Your task to perform on an android device: Check the news Image 0: 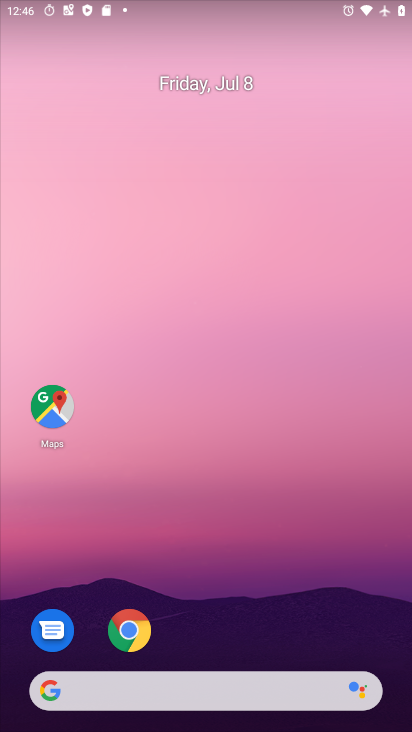
Step 0: drag from (198, 629) to (211, 198)
Your task to perform on an android device: Check the news Image 1: 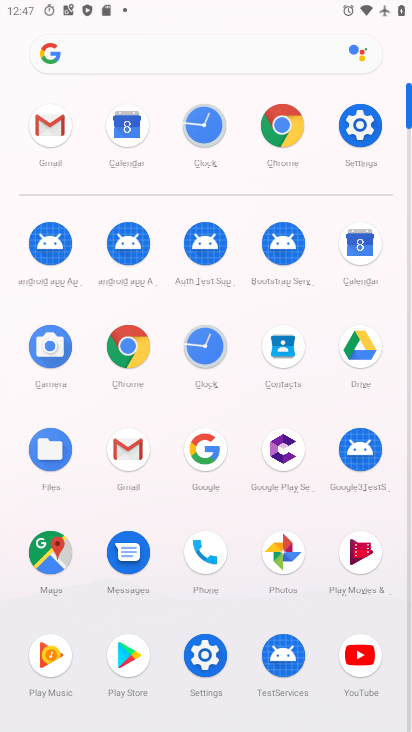
Step 1: click (203, 444)
Your task to perform on an android device: Check the news Image 2: 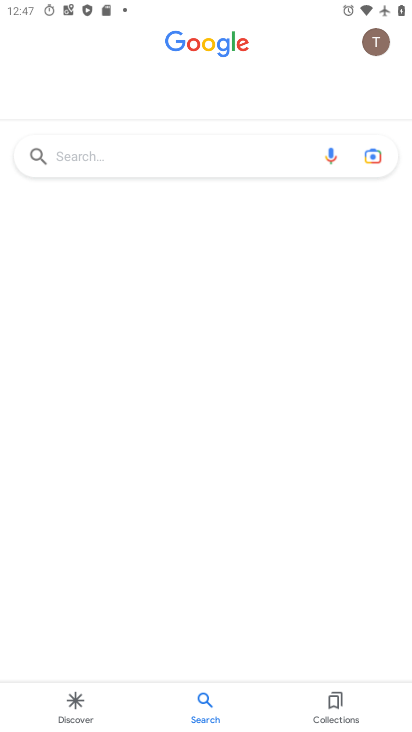
Step 2: click (154, 168)
Your task to perform on an android device: Check the news Image 3: 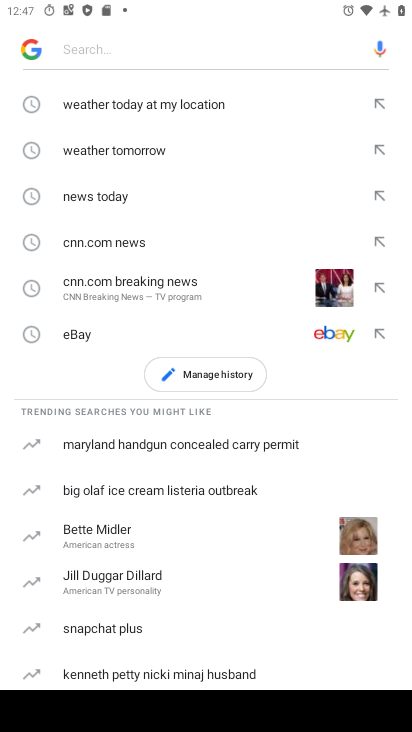
Step 3: type "news"
Your task to perform on an android device: Check the news Image 4: 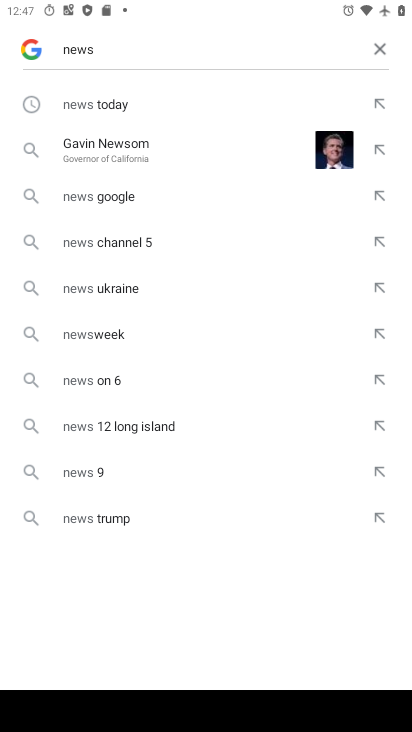
Step 4: click (121, 117)
Your task to perform on an android device: Check the news Image 5: 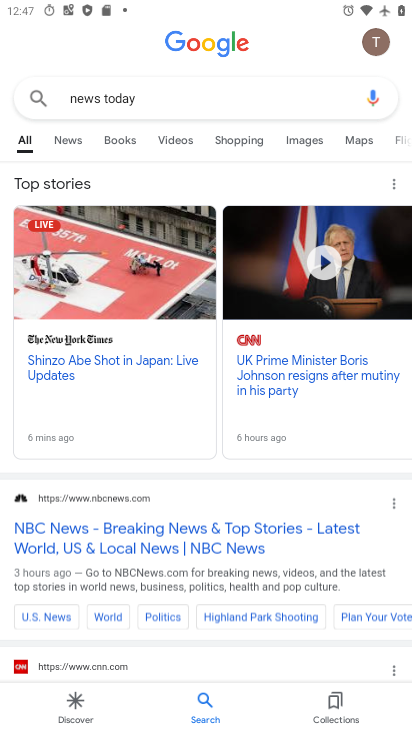
Step 5: click (60, 127)
Your task to perform on an android device: Check the news Image 6: 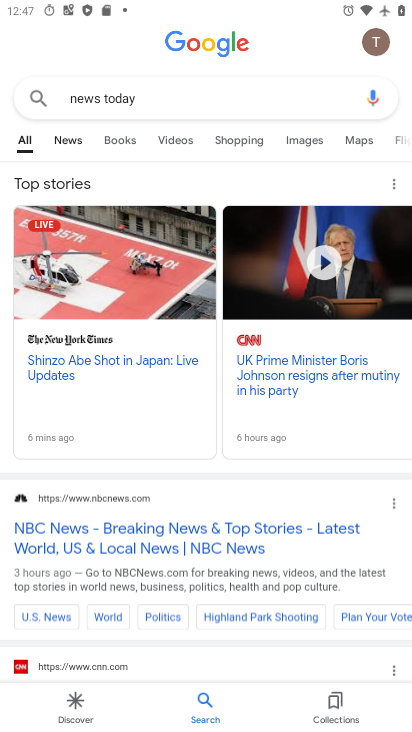
Step 6: click (79, 147)
Your task to perform on an android device: Check the news Image 7: 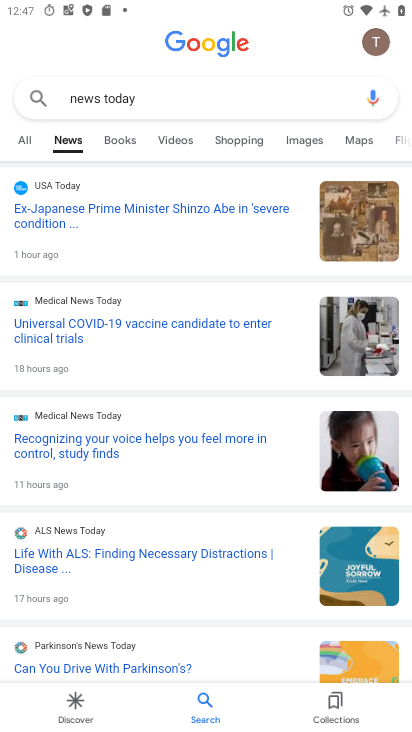
Step 7: task complete